Your task to perform on an android device: Open eBay Image 0: 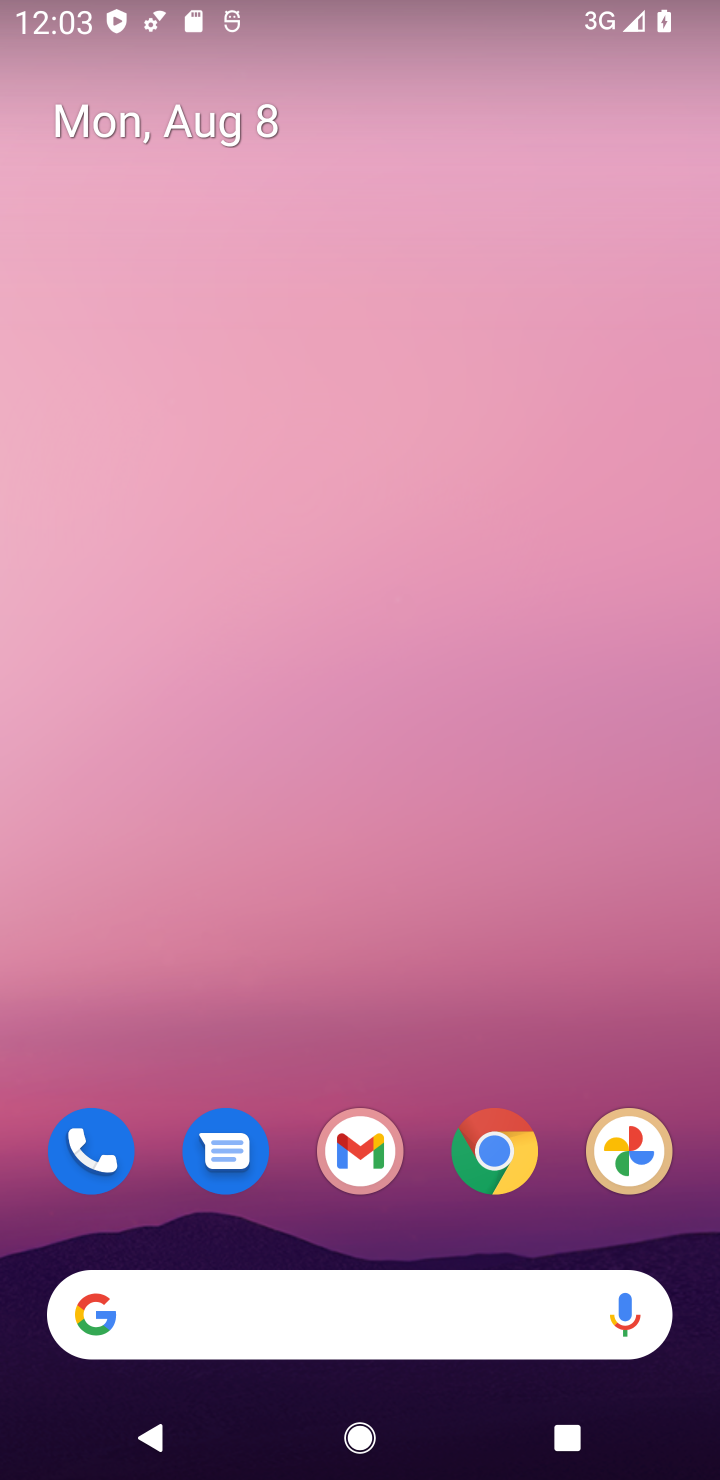
Step 0: drag from (306, 1184) to (214, 399)
Your task to perform on an android device: Open eBay Image 1: 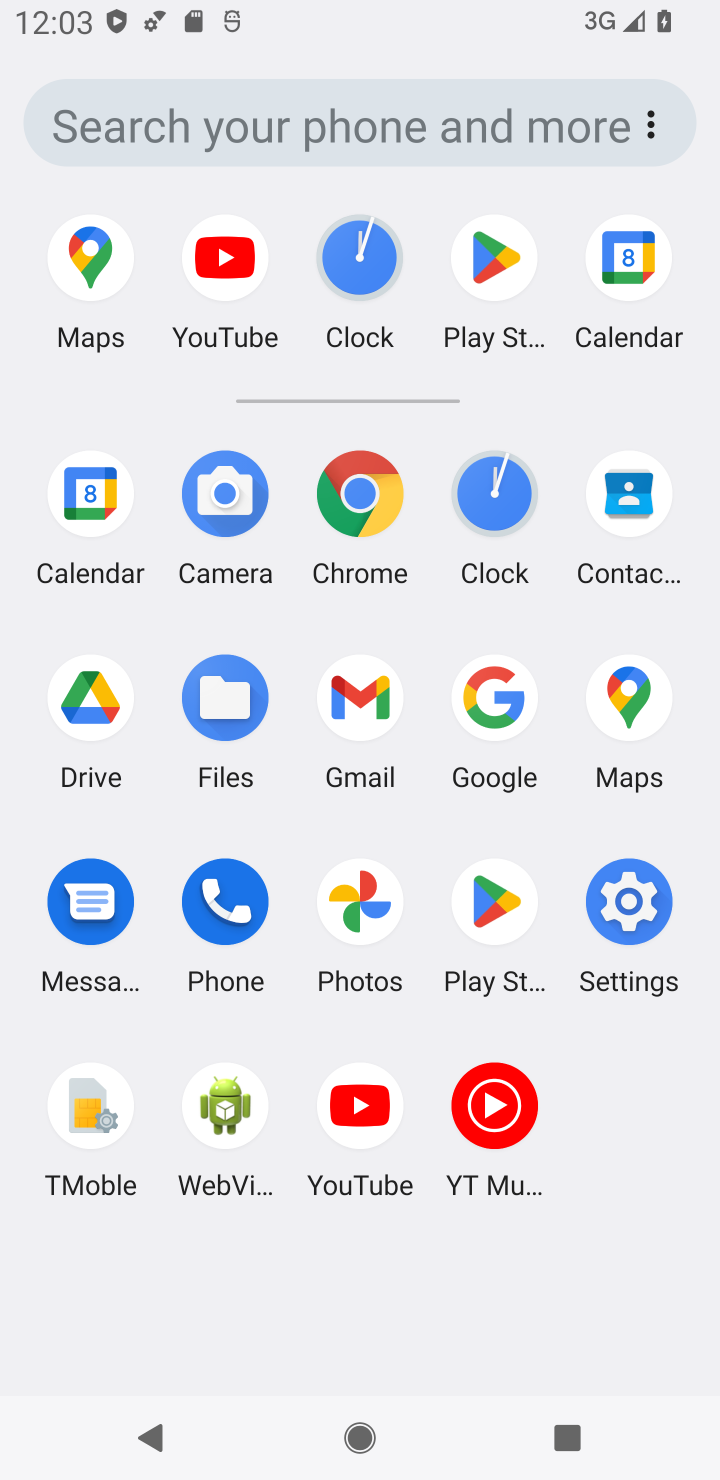
Step 1: click (485, 714)
Your task to perform on an android device: Open eBay Image 2: 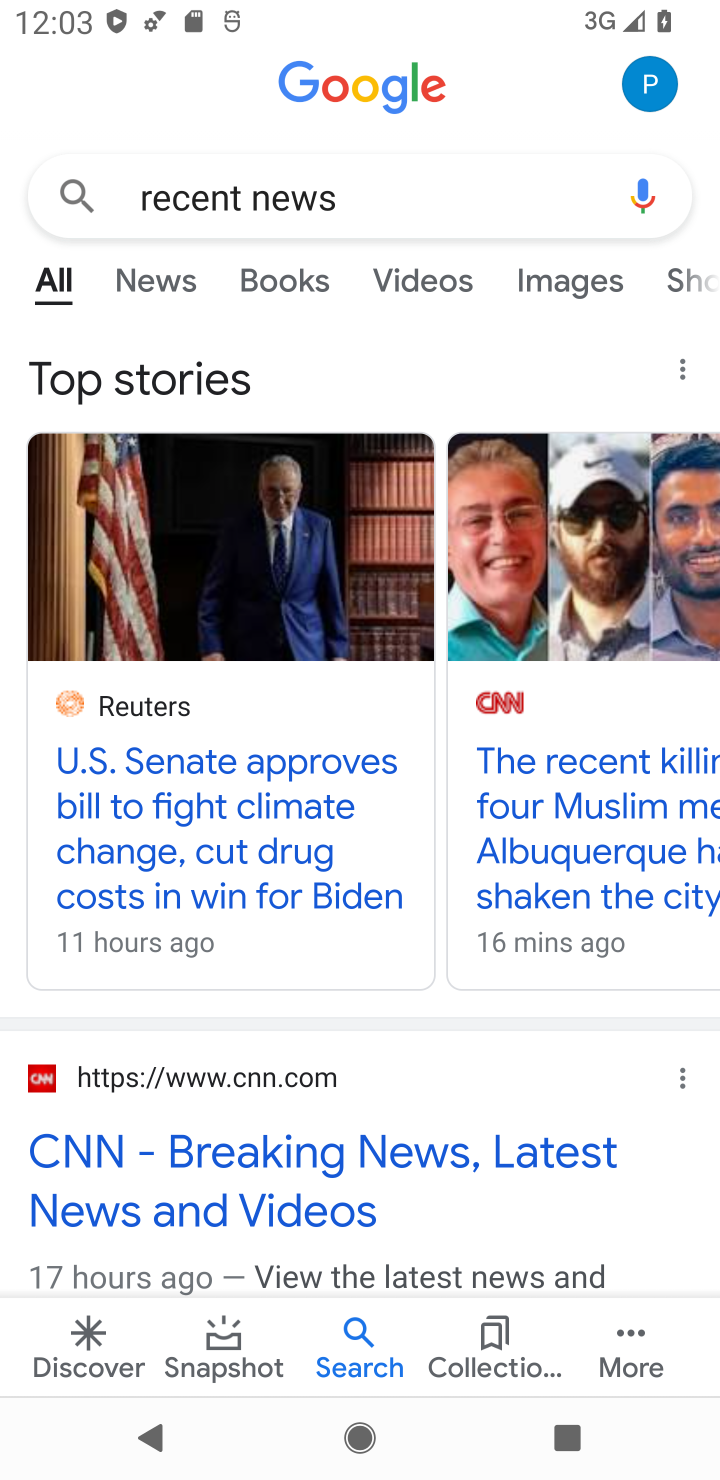
Step 2: click (309, 209)
Your task to perform on an android device: Open eBay Image 3: 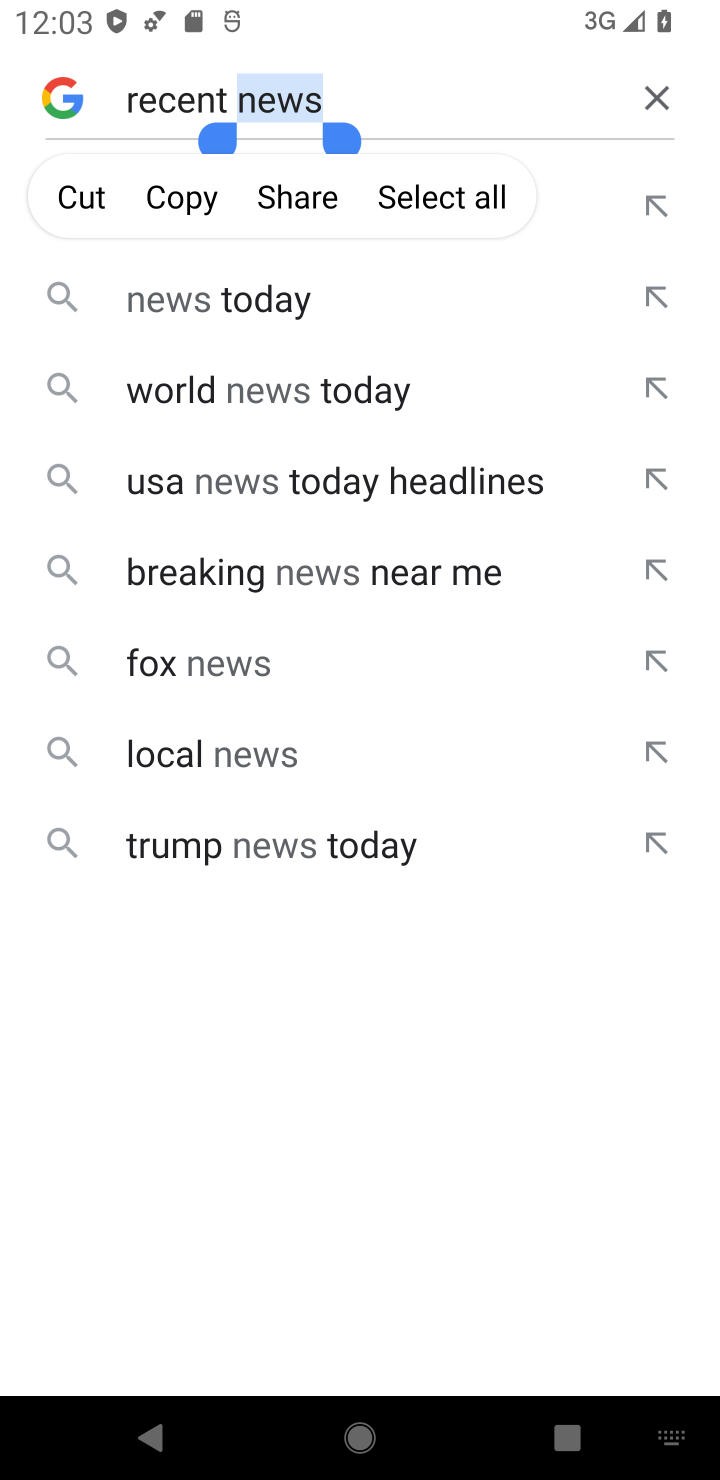
Step 3: click (642, 102)
Your task to perform on an android device: Open eBay Image 4: 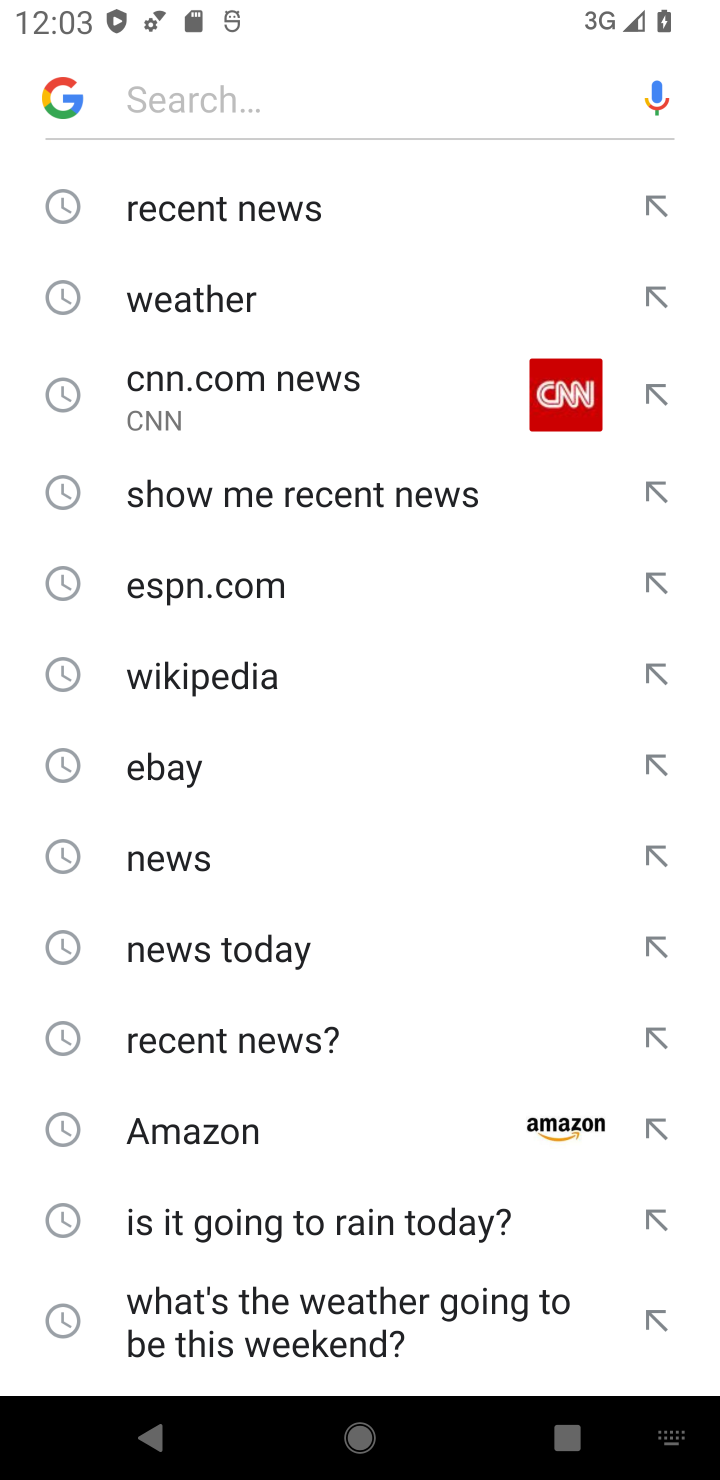
Step 4: drag from (326, 1085) to (256, 409)
Your task to perform on an android device: Open eBay Image 5: 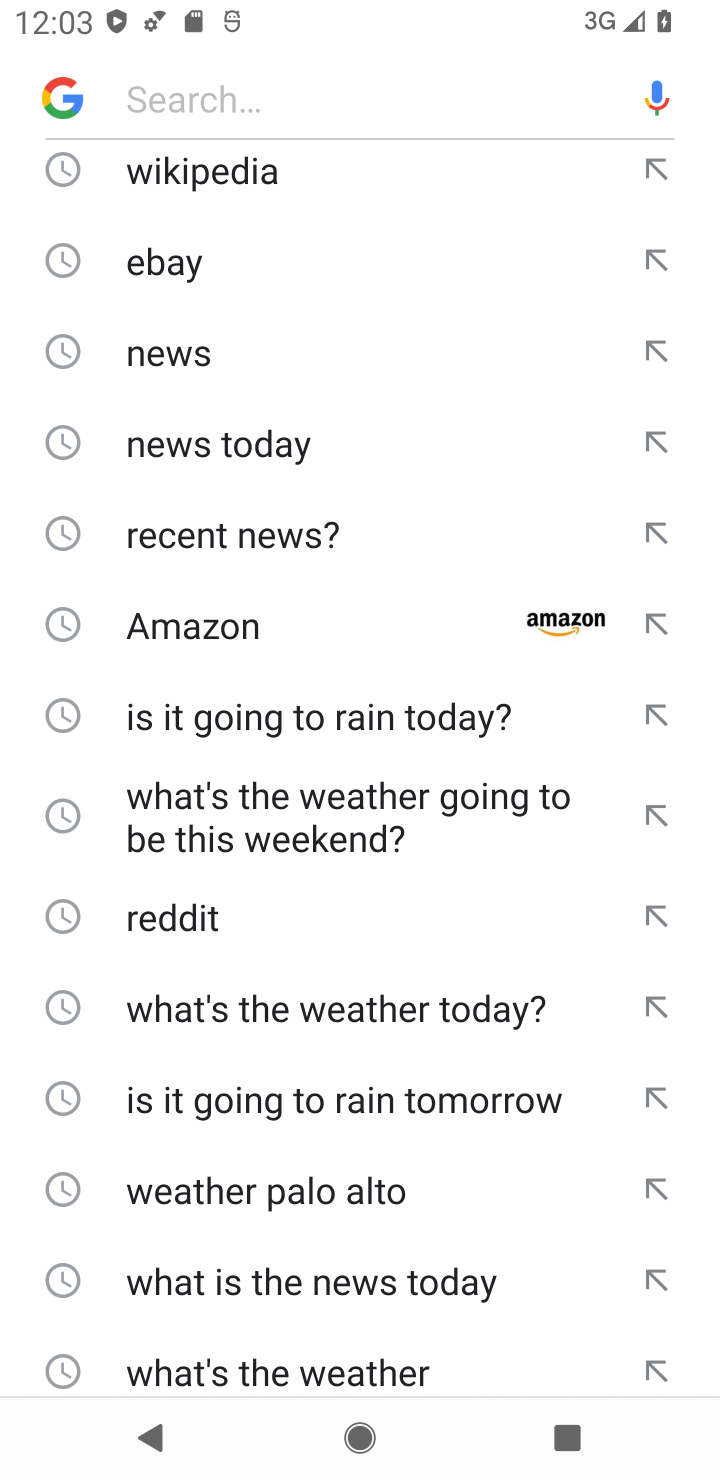
Step 5: drag from (377, 1185) to (272, 588)
Your task to perform on an android device: Open eBay Image 6: 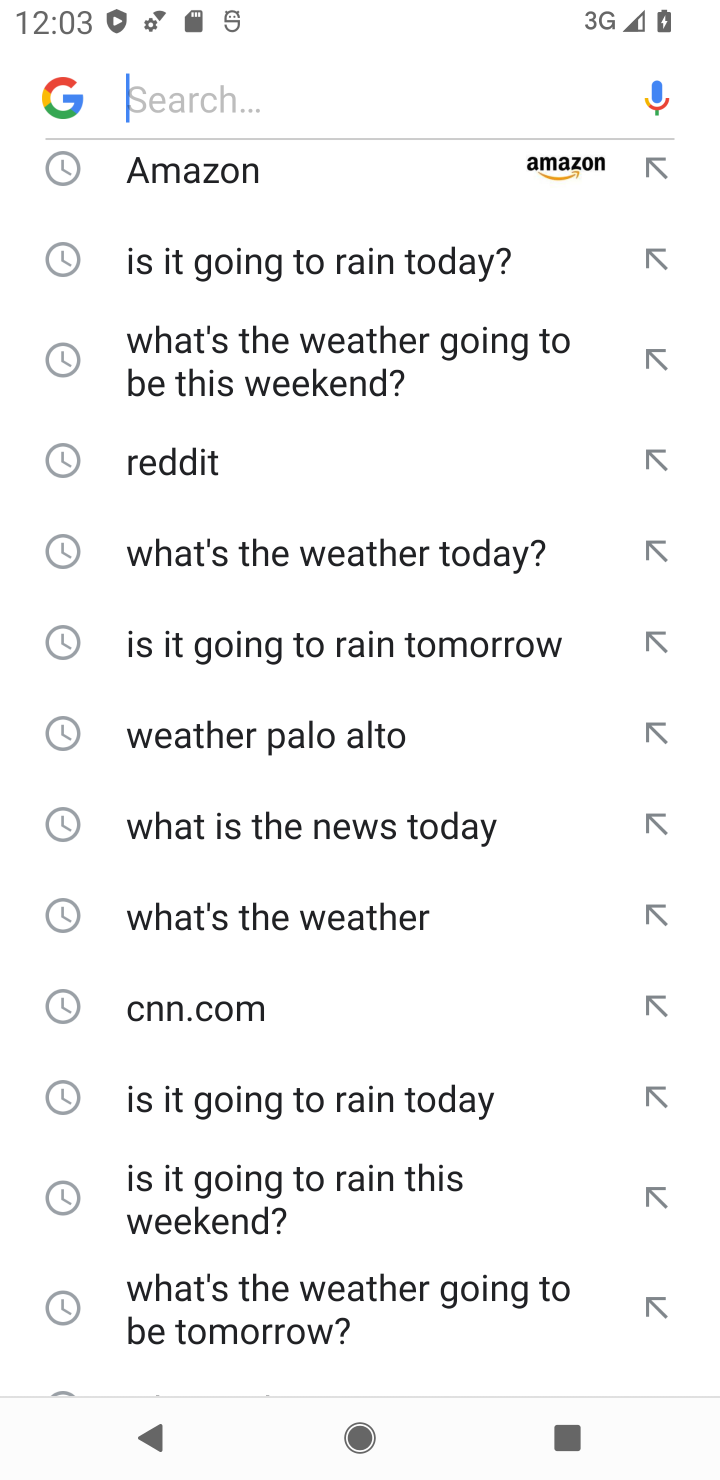
Step 6: drag from (308, 1171) to (223, 539)
Your task to perform on an android device: Open eBay Image 7: 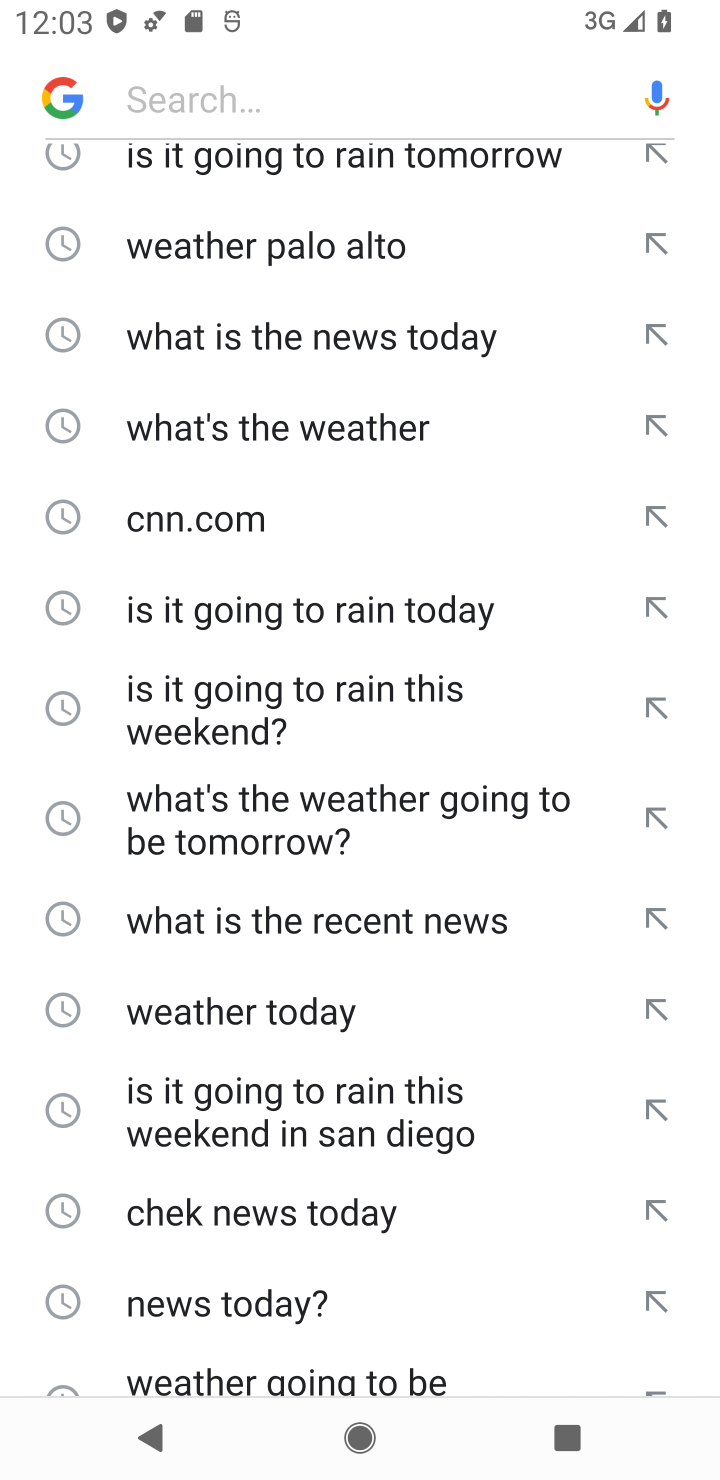
Step 7: drag from (281, 438) to (257, 1106)
Your task to perform on an android device: Open eBay Image 8: 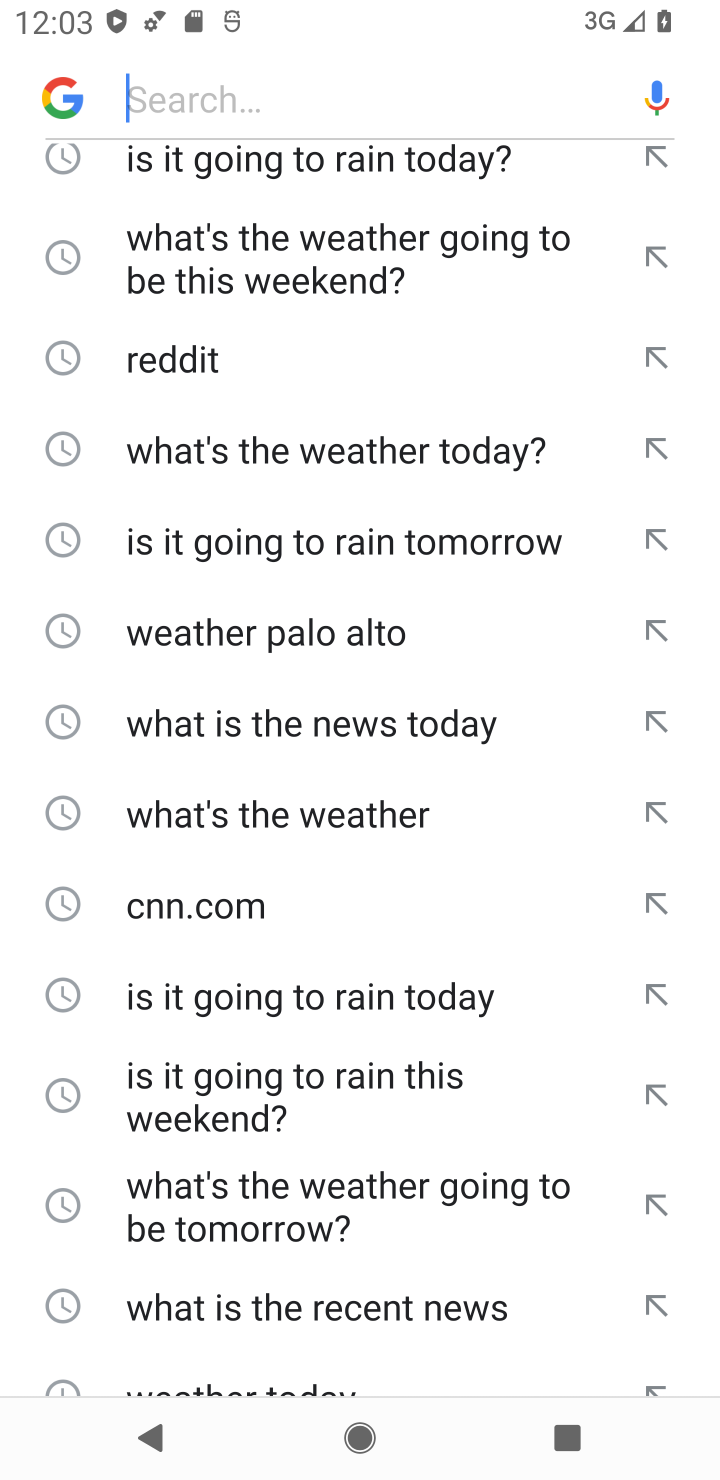
Step 8: drag from (336, 350) to (338, 1070)
Your task to perform on an android device: Open eBay Image 9: 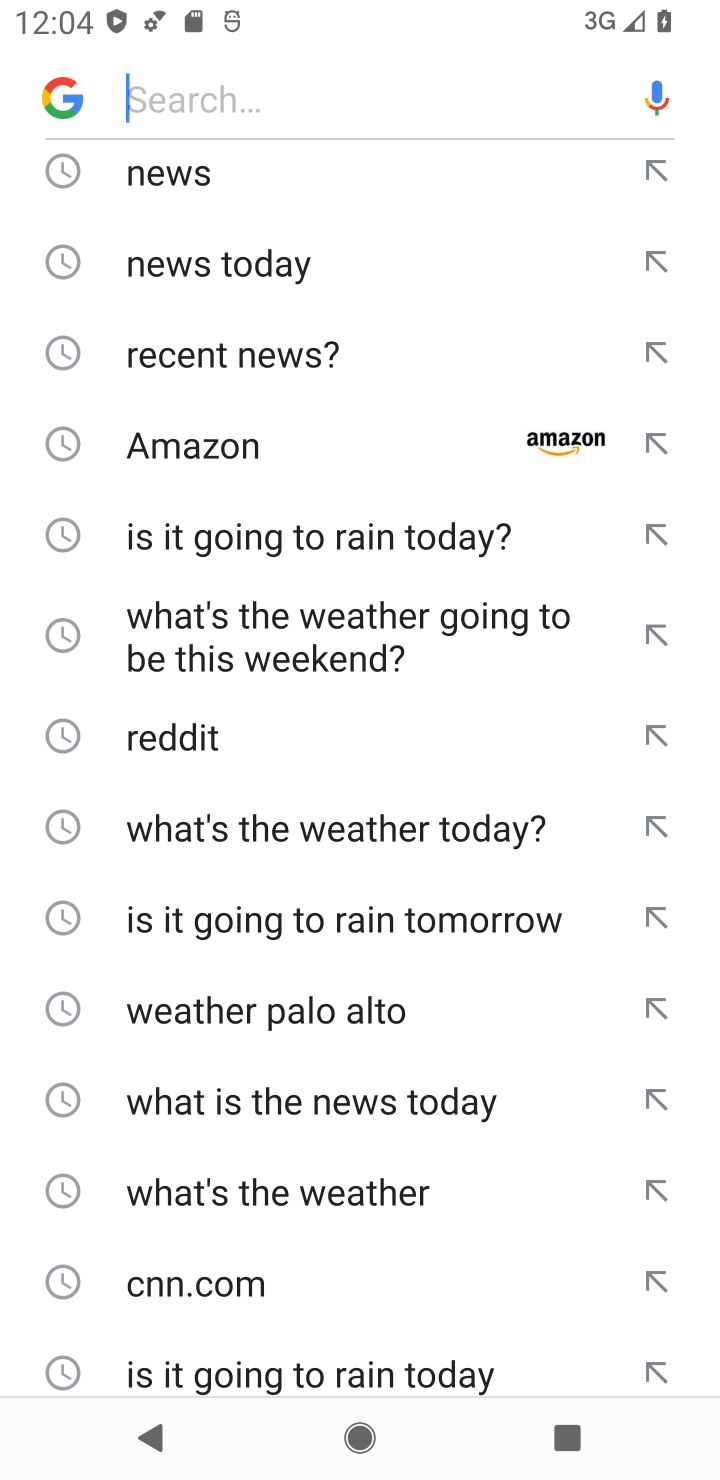
Step 9: drag from (352, 271) to (372, 1014)
Your task to perform on an android device: Open eBay Image 10: 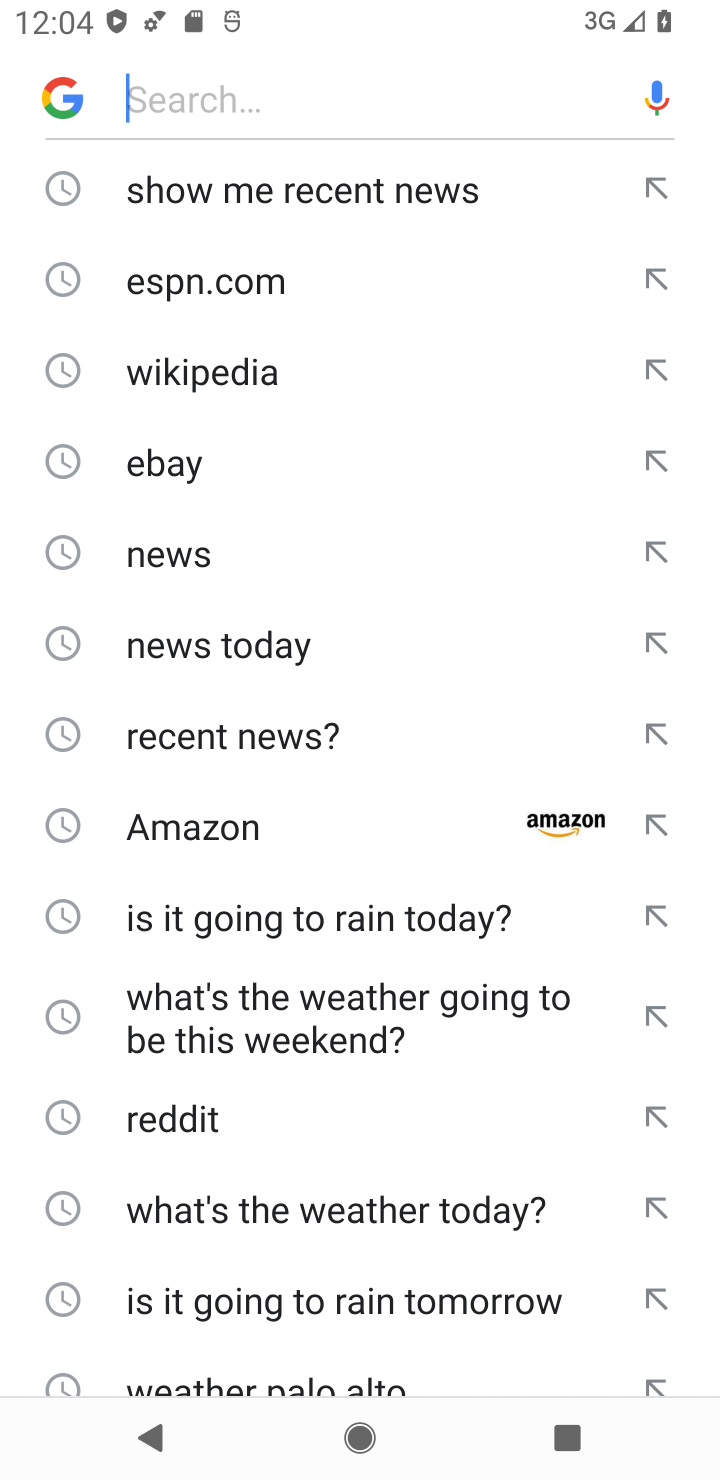
Step 10: drag from (262, 305) to (245, 973)
Your task to perform on an android device: Open eBay Image 11: 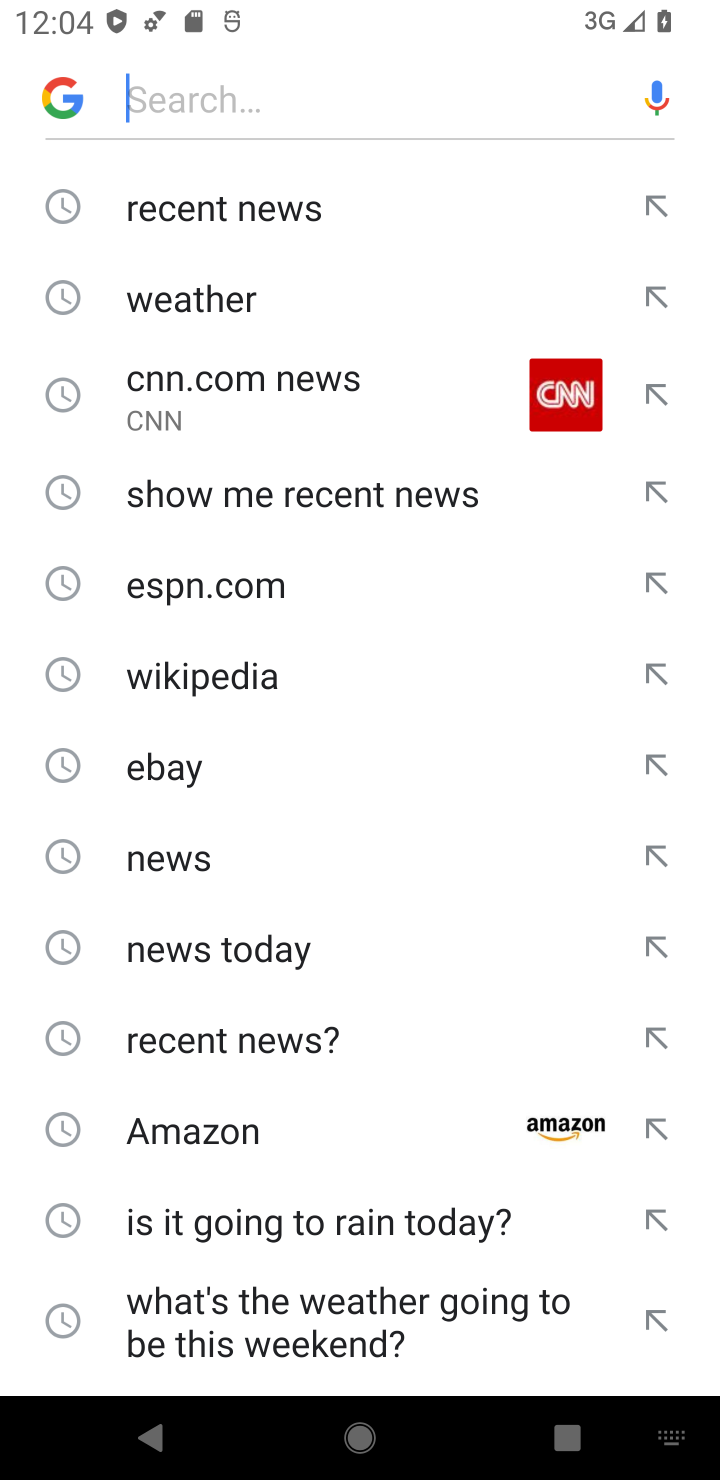
Step 11: click (196, 774)
Your task to perform on an android device: Open eBay Image 12: 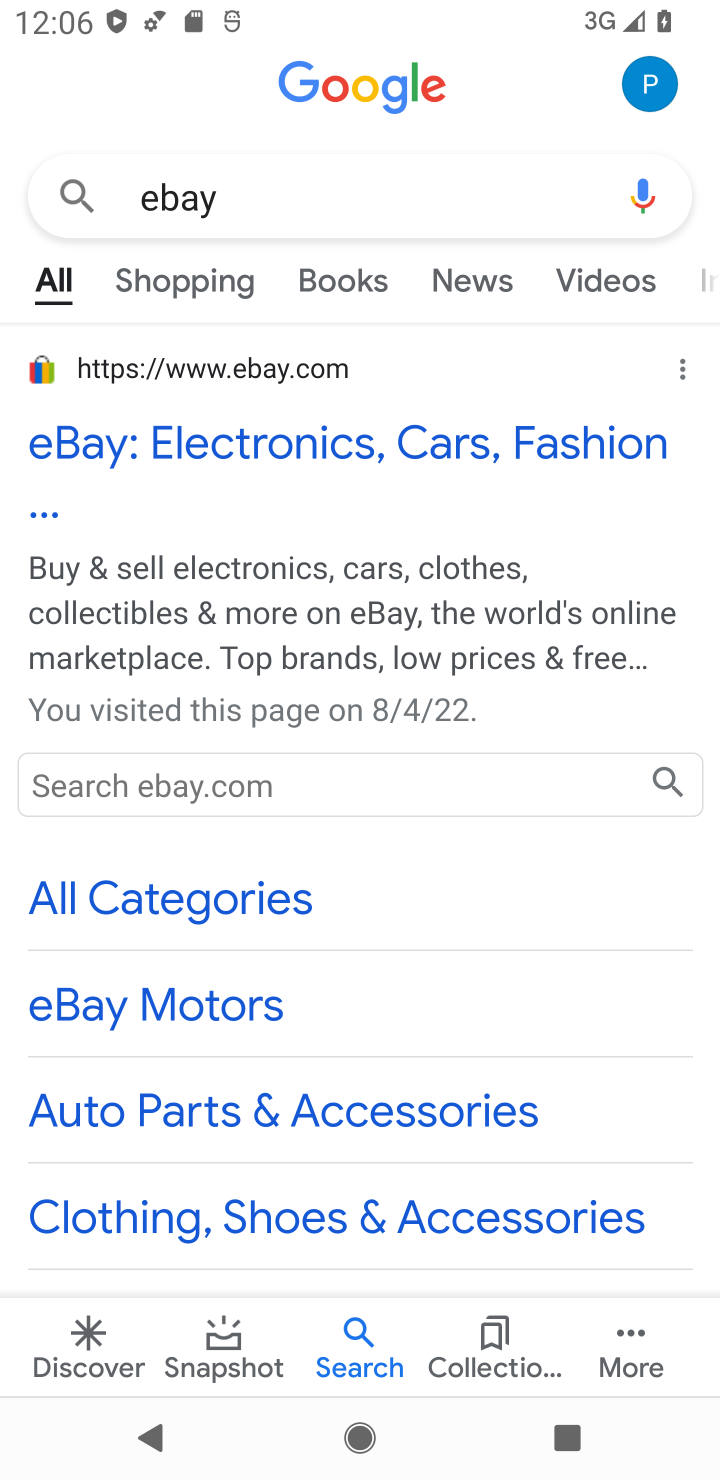
Step 12: click (335, 425)
Your task to perform on an android device: Open eBay Image 13: 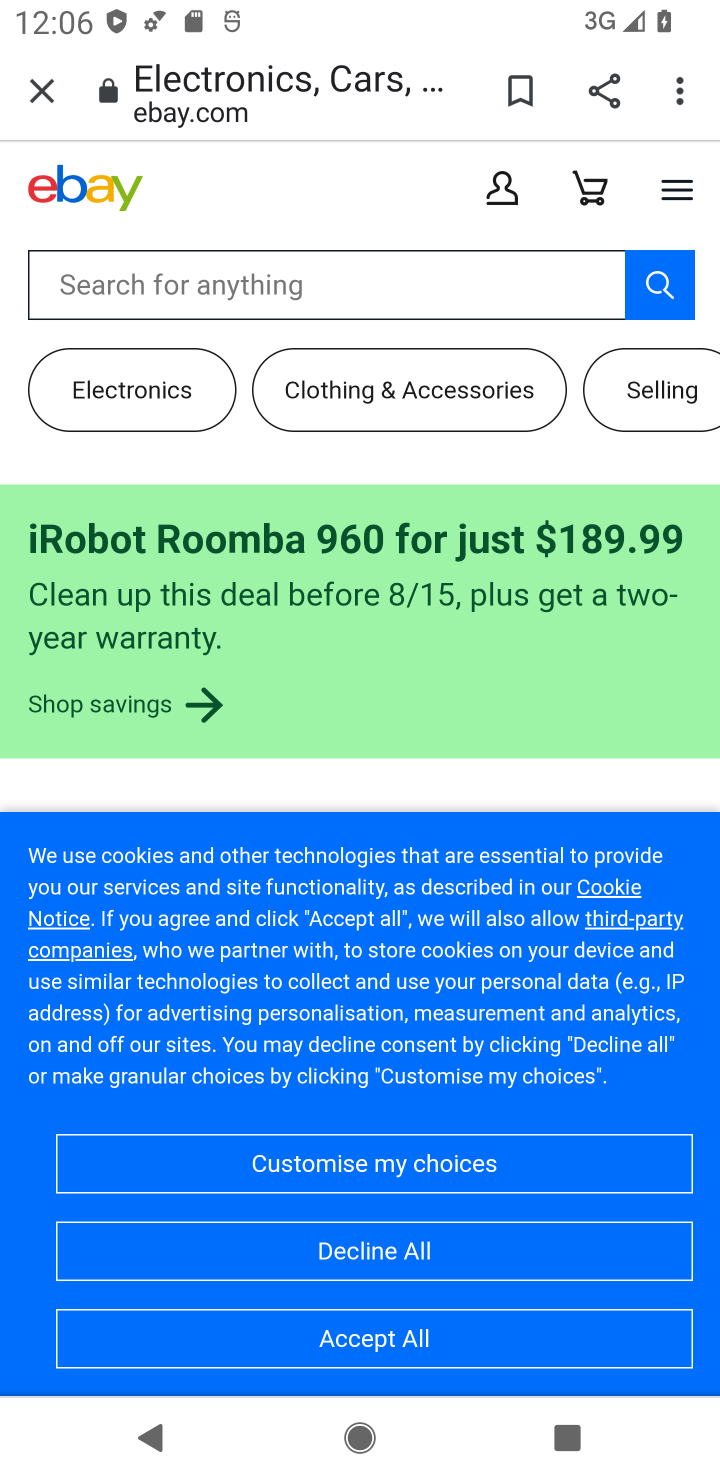
Step 13: task complete